Your task to perform on an android device: add a contact Image 0: 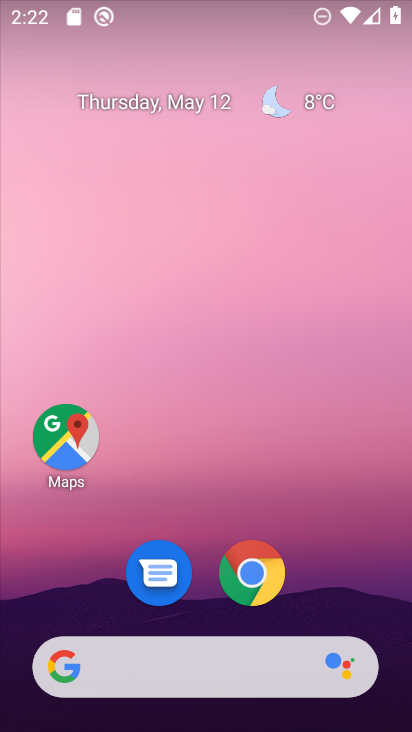
Step 0: drag from (327, 617) to (172, 116)
Your task to perform on an android device: add a contact Image 1: 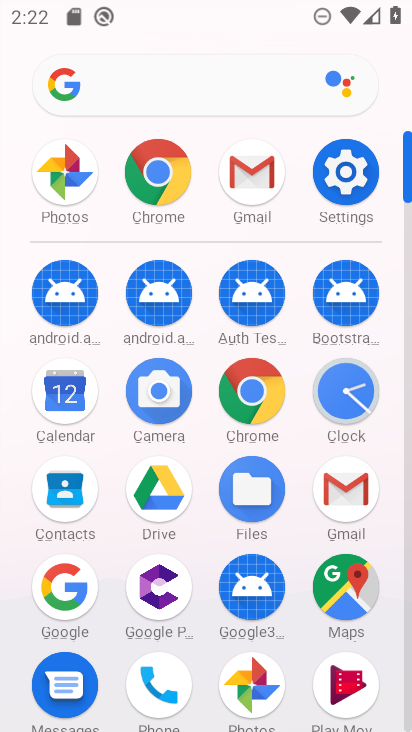
Step 1: click (72, 496)
Your task to perform on an android device: add a contact Image 2: 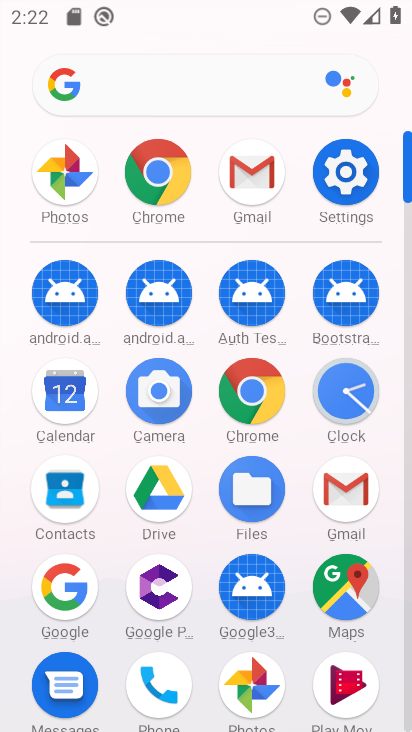
Step 2: click (71, 495)
Your task to perform on an android device: add a contact Image 3: 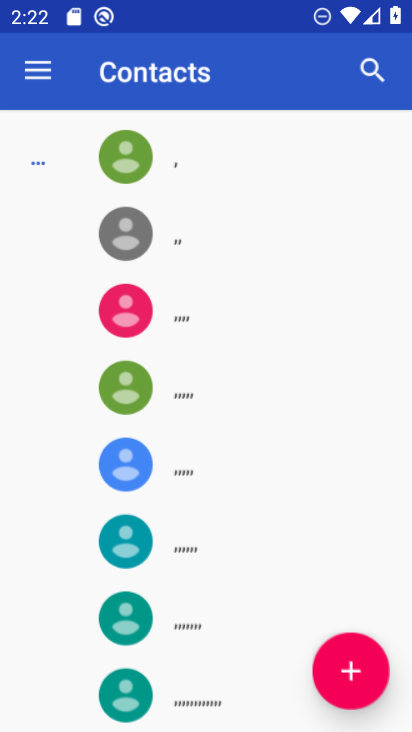
Step 3: click (71, 493)
Your task to perform on an android device: add a contact Image 4: 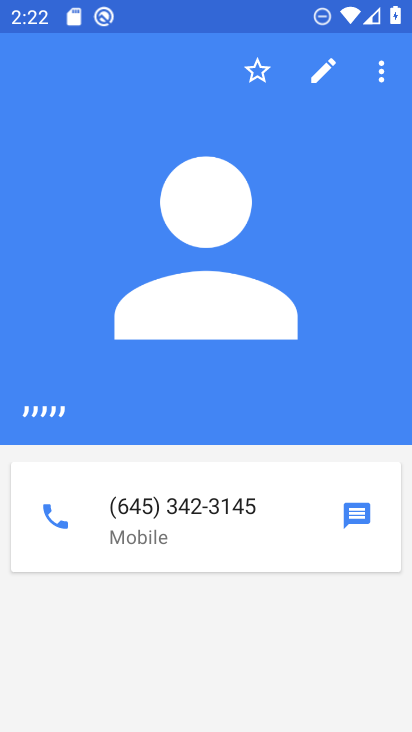
Step 4: press back button
Your task to perform on an android device: add a contact Image 5: 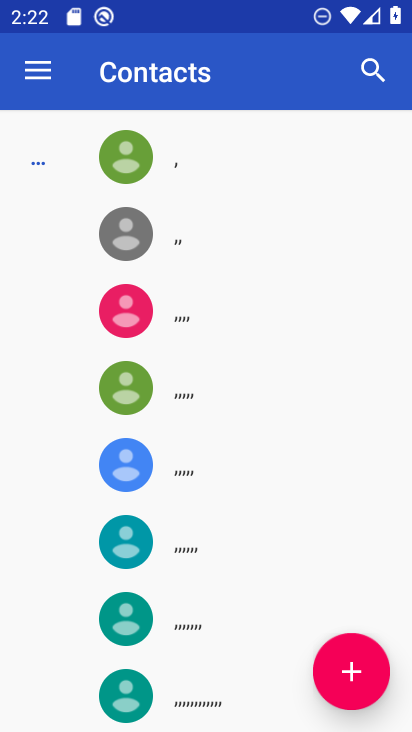
Step 5: click (355, 665)
Your task to perform on an android device: add a contact Image 6: 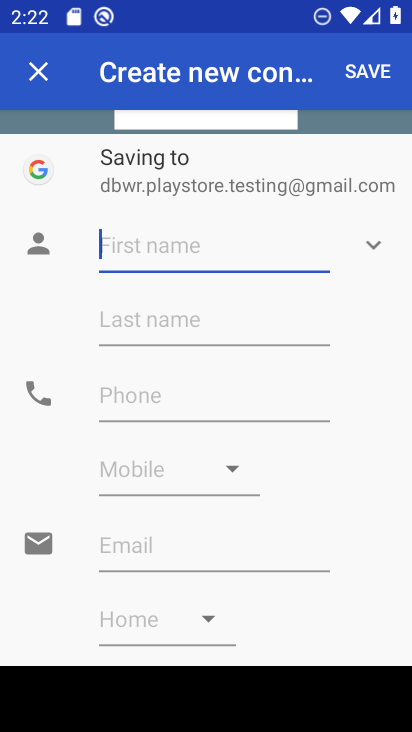
Step 6: type "hiisdhihiuh"
Your task to perform on an android device: add a contact Image 7: 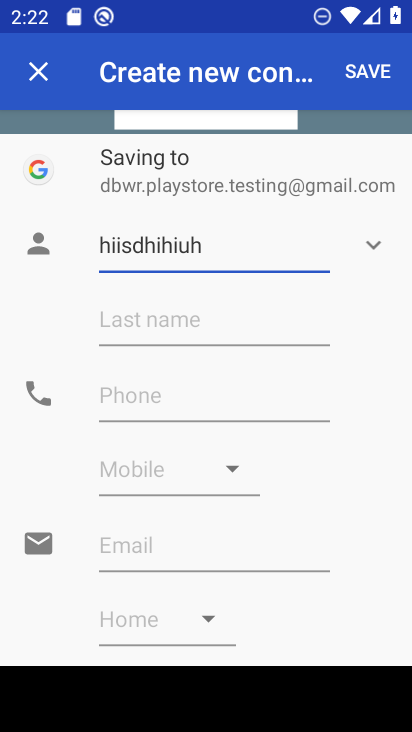
Step 7: click (132, 393)
Your task to perform on an android device: add a contact Image 8: 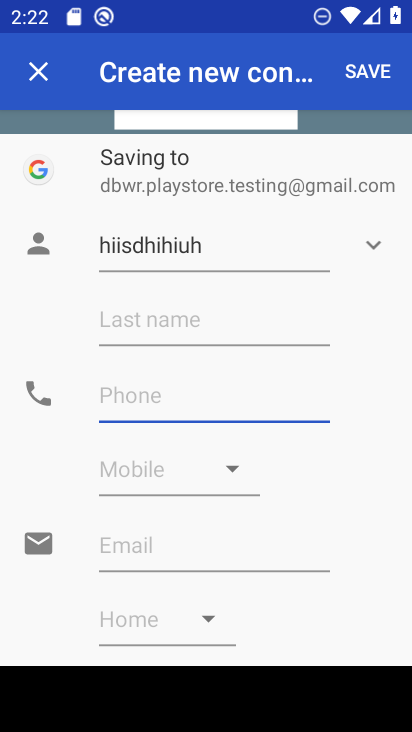
Step 8: type "878968766872"
Your task to perform on an android device: add a contact Image 9: 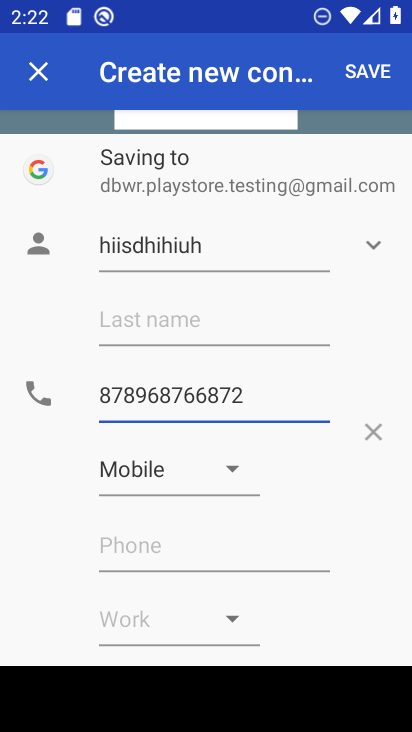
Step 9: click (371, 76)
Your task to perform on an android device: add a contact Image 10: 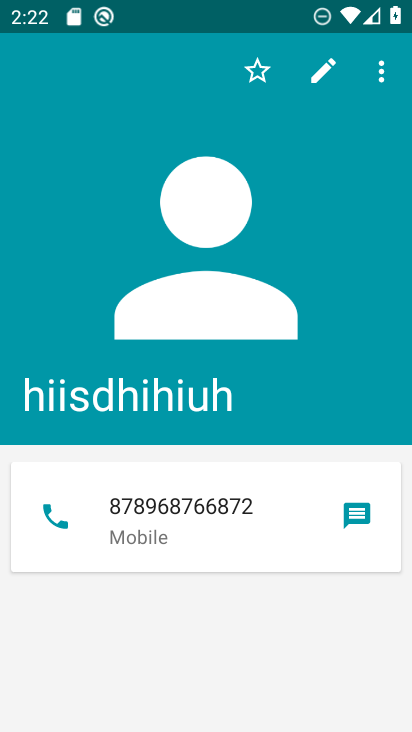
Step 10: task complete